Your task to perform on an android device: Open the map Image 0: 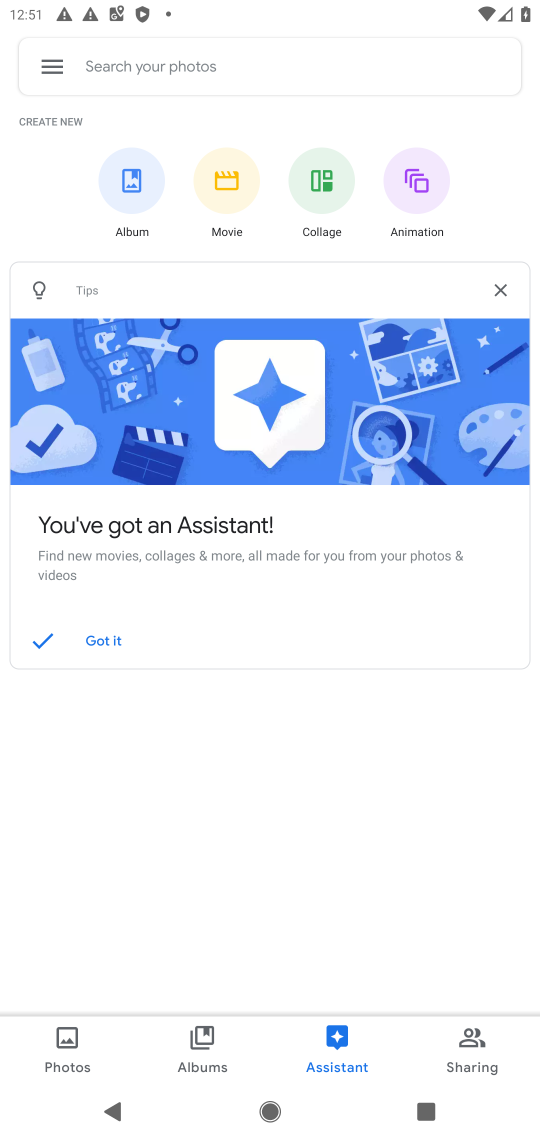
Step 0: press home button
Your task to perform on an android device: Open the map Image 1: 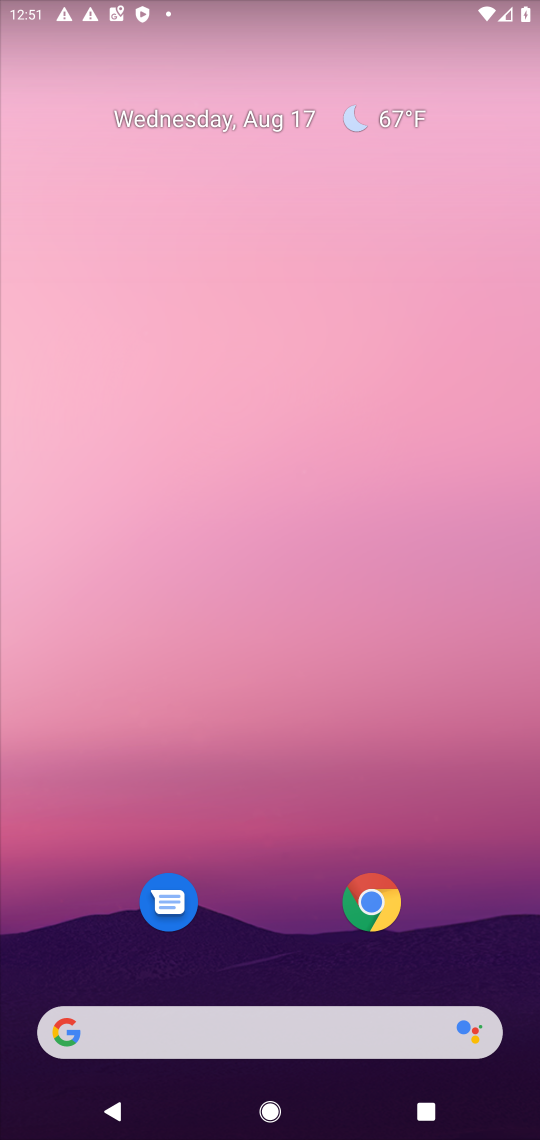
Step 1: drag from (285, 915) to (436, 39)
Your task to perform on an android device: Open the map Image 2: 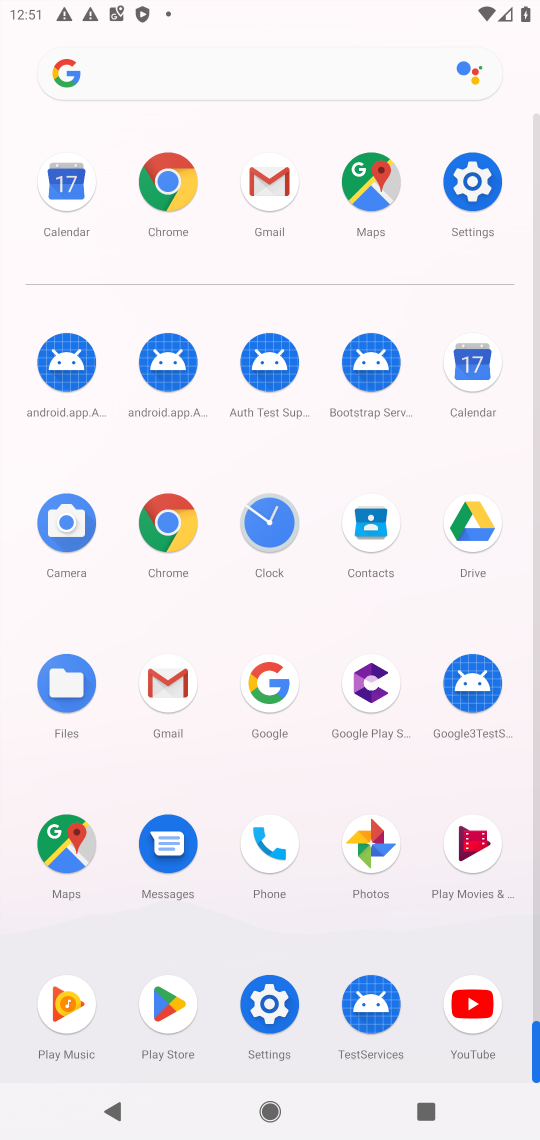
Step 2: click (60, 851)
Your task to perform on an android device: Open the map Image 3: 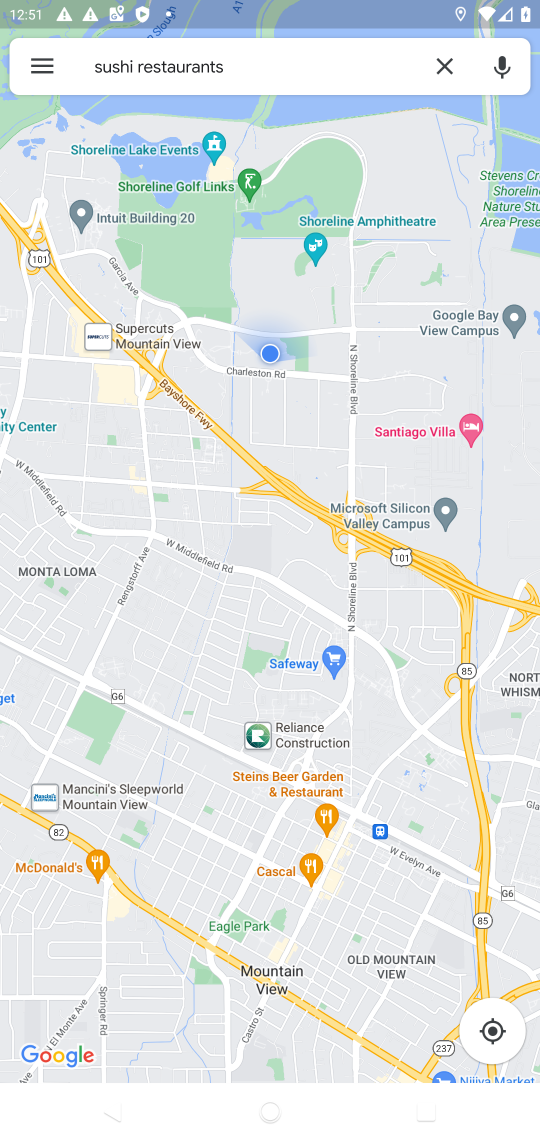
Step 3: task complete